Your task to perform on an android device: search for starred emails in the gmail app Image 0: 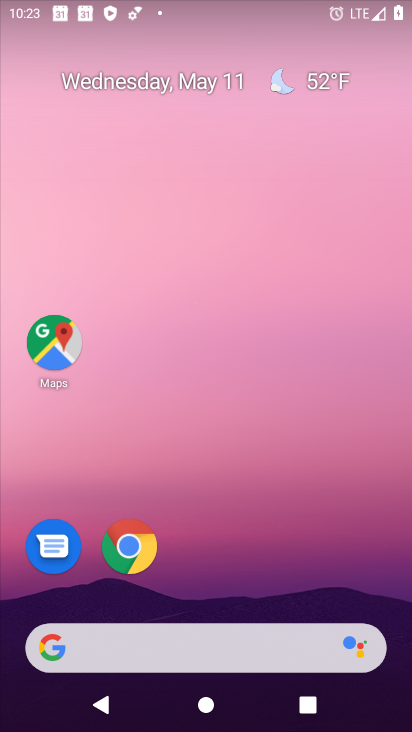
Step 0: drag from (191, 646) to (234, 144)
Your task to perform on an android device: search for starred emails in the gmail app Image 1: 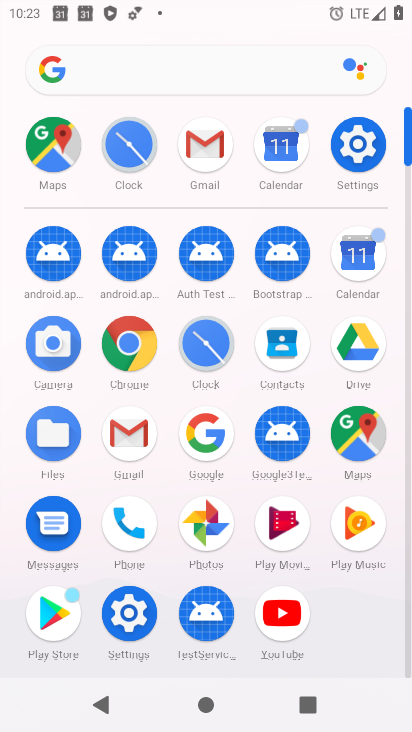
Step 1: click (141, 437)
Your task to perform on an android device: search for starred emails in the gmail app Image 2: 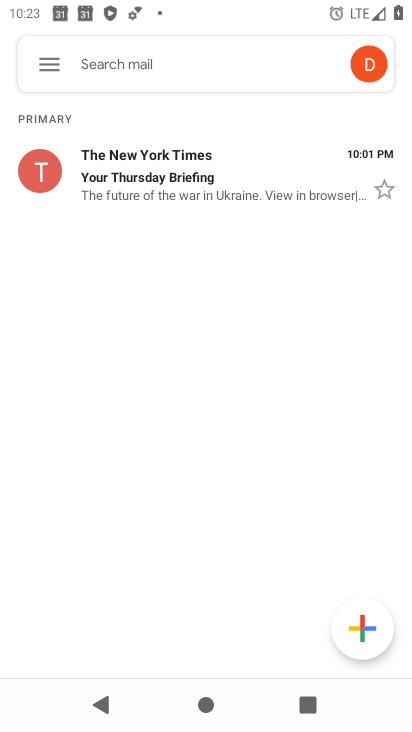
Step 2: click (48, 75)
Your task to perform on an android device: search for starred emails in the gmail app Image 3: 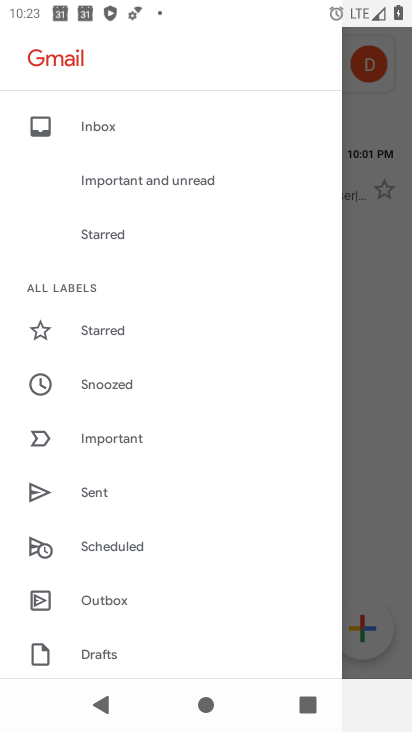
Step 3: click (80, 340)
Your task to perform on an android device: search for starred emails in the gmail app Image 4: 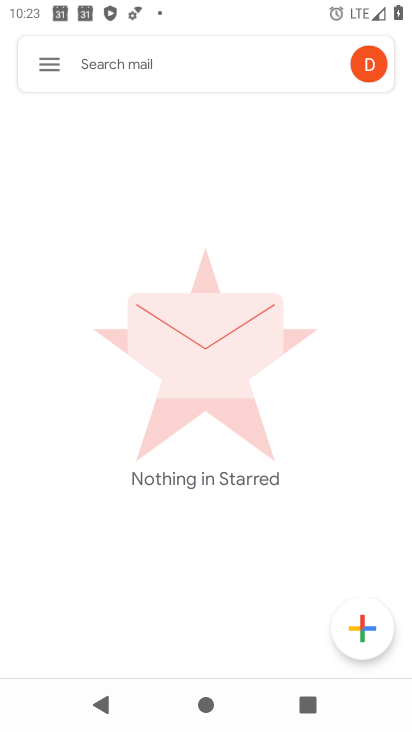
Step 4: task complete